Your task to perform on an android device: Open eBay Image 0: 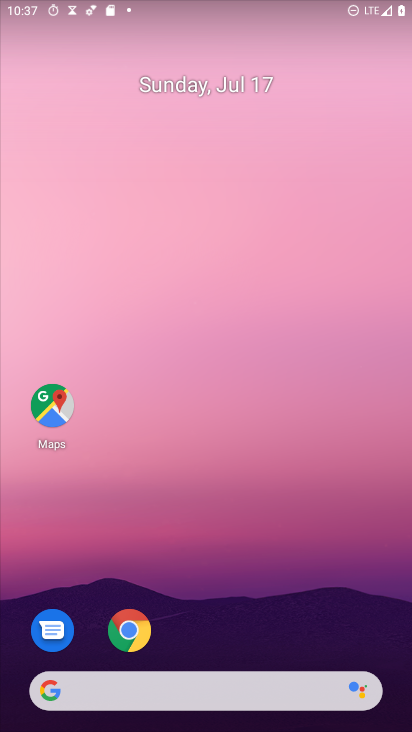
Step 0: drag from (347, 641) to (329, 6)
Your task to perform on an android device: Open eBay Image 1: 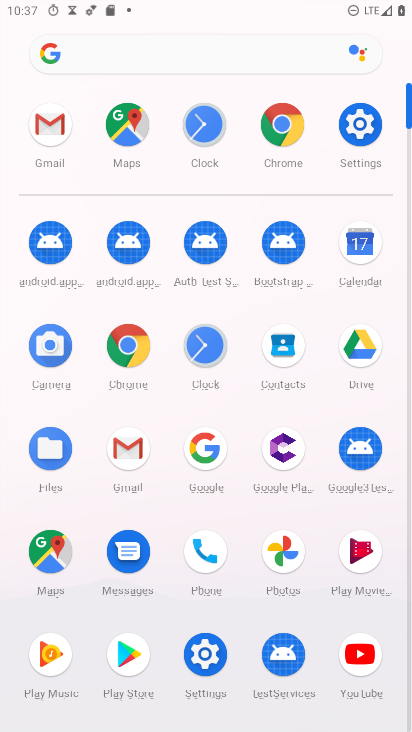
Step 1: click (126, 345)
Your task to perform on an android device: Open eBay Image 2: 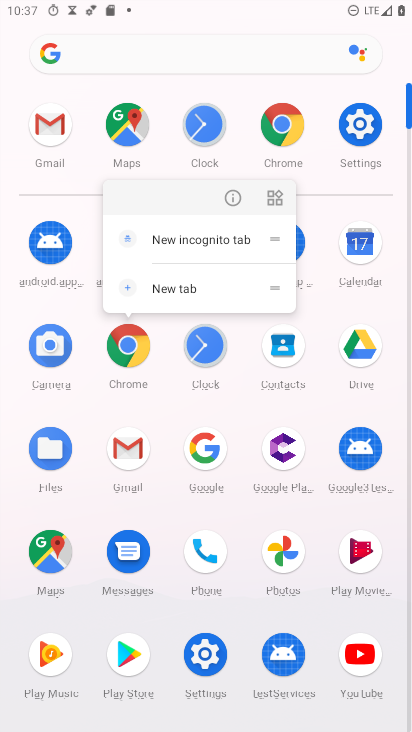
Step 2: click (126, 345)
Your task to perform on an android device: Open eBay Image 3: 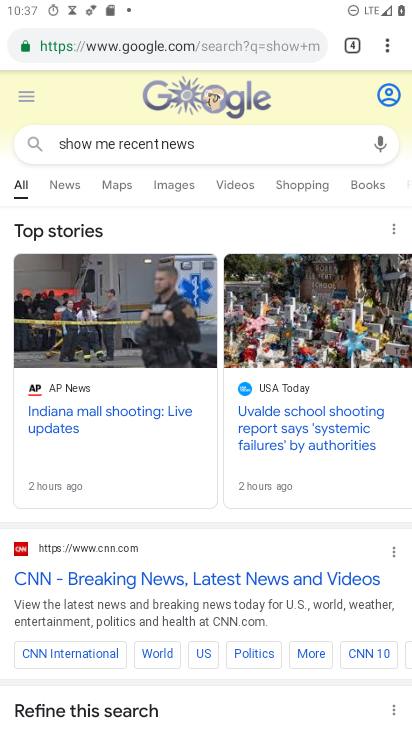
Step 3: click (195, 35)
Your task to perform on an android device: Open eBay Image 4: 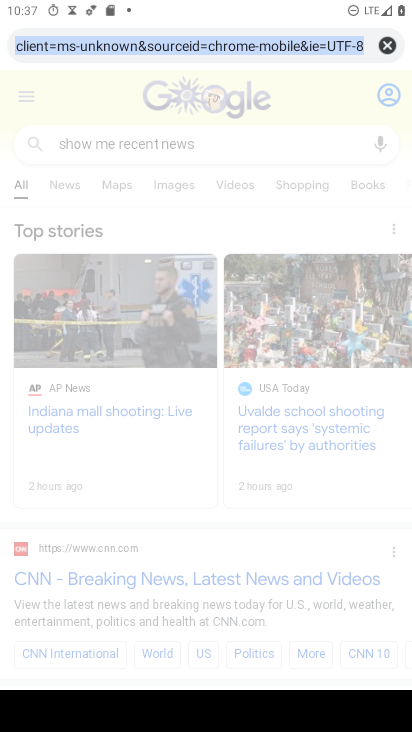
Step 4: type "ebay"
Your task to perform on an android device: Open eBay Image 5: 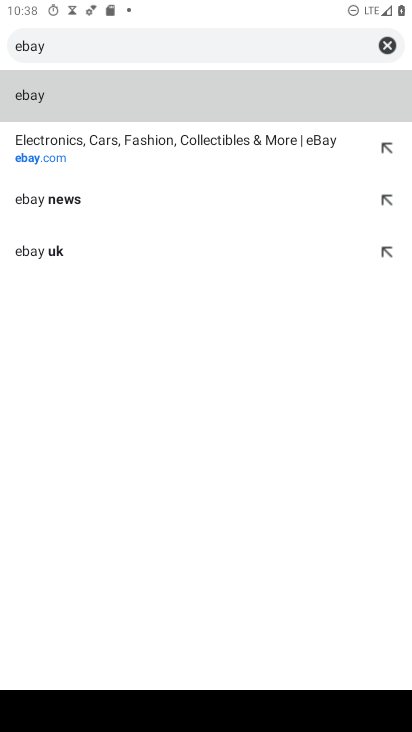
Step 5: click (199, 146)
Your task to perform on an android device: Open eBay Image 6: 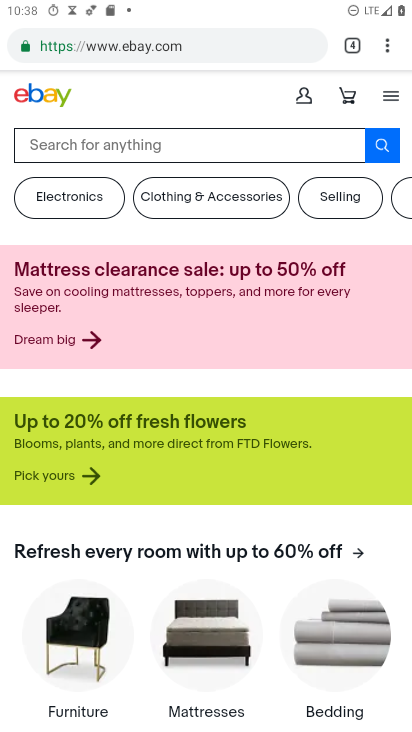
Step 6: task complete